Your task to perform on an android device: Go to calendar. Show me events next week Image 0: 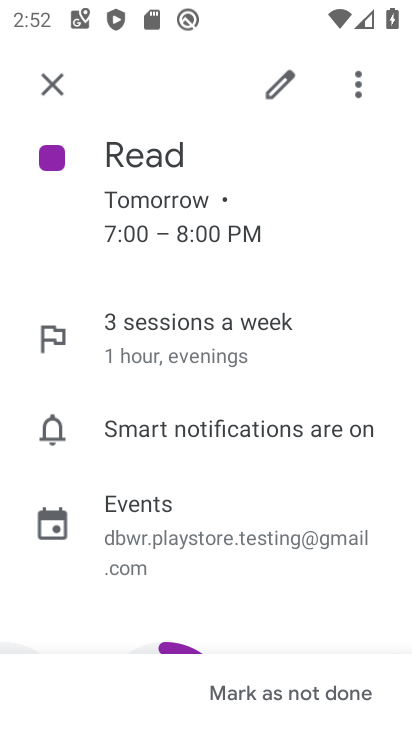
Step 0: click (51, 67)
Your task to perform on an android device: Go to calendar. Show me events next week Image 1: 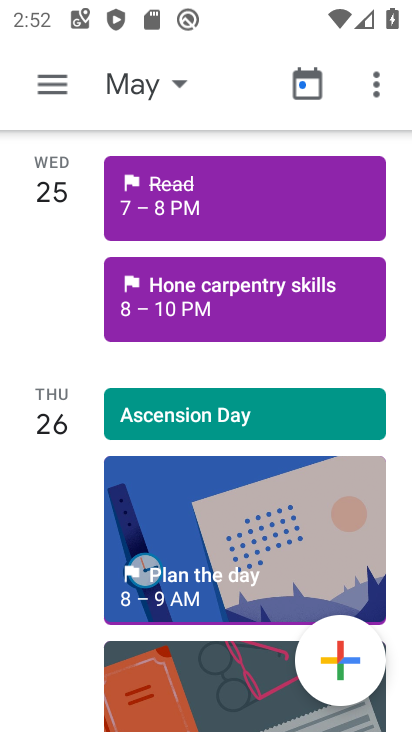
Step 1: click (315, 76)
Your task to perform on an android device: Go to calendar. Show me events next week Image 2: 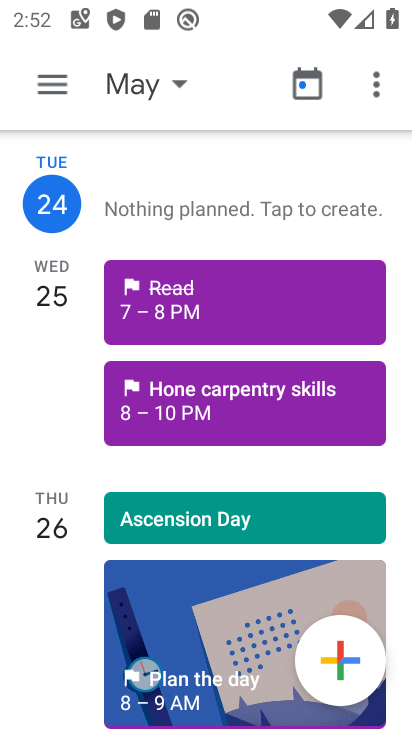
Step 2: click (185, 77)
Your task to perform on an android device: Go to calendar. Show me events next week Image 3: 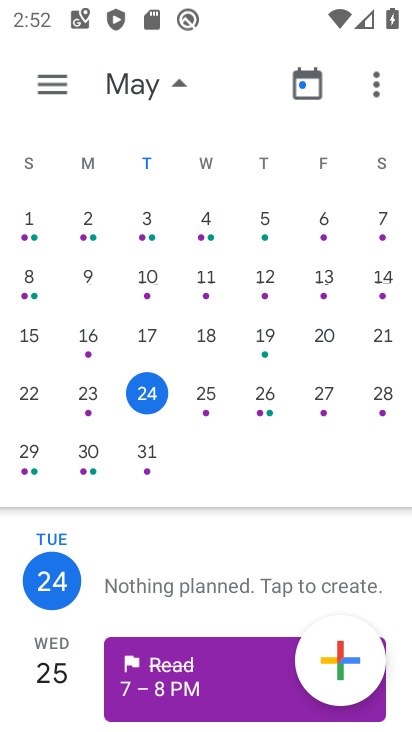
Step 3: click (93, 461)
Your task to perform on an android device: Go to calendar. Show me events next week Image 4: 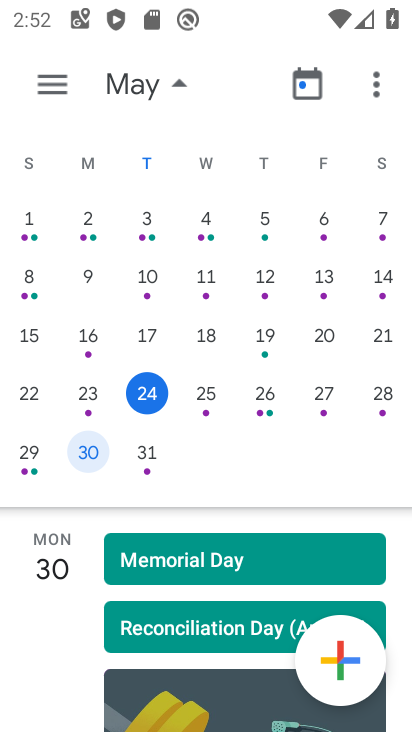
Step 4: click (59, 82)
Your task to perform on an android device: Go to calendar. Show me events next week Image 5: 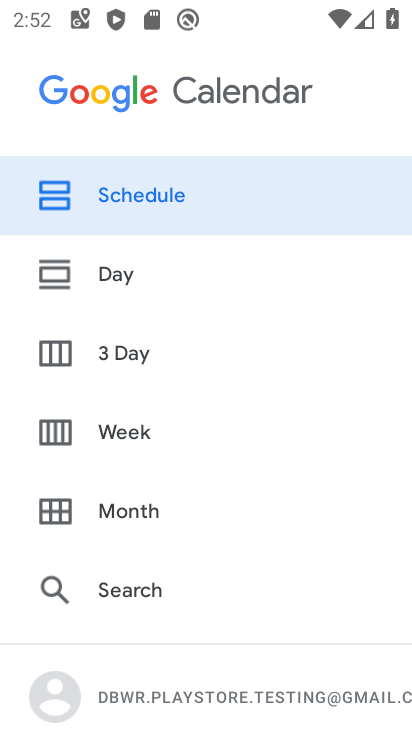
Step 5: click (98, 195)
Your task to perform on an android device: Go to calendar. Show me events next week Image 6: 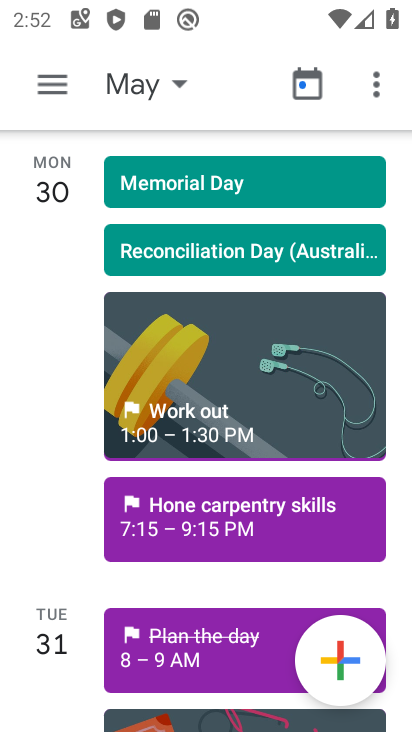
Step 6: click (229, 511)
Your task to perform on an android device: Go to calendar. Show me events next week Image 7: 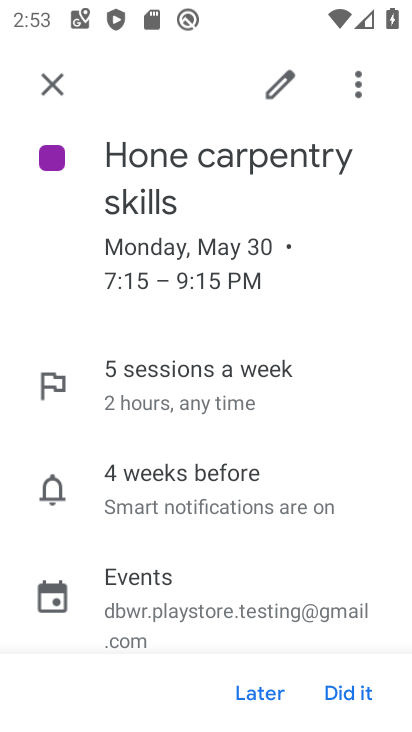
Step 7: task complete